Your task to perform on an android device: Set the phone to "Do not disturb". Image 0: 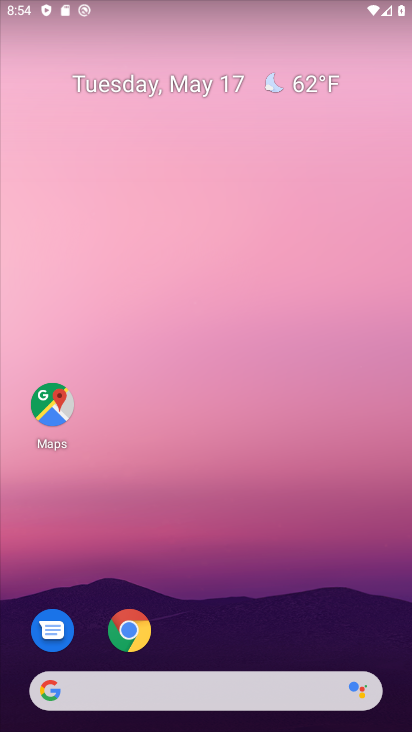
Step 0: drag from (211, 609) to (208, 245)
Your task to perform on an android device: Set the phone to "Do not disturb". Image 1: 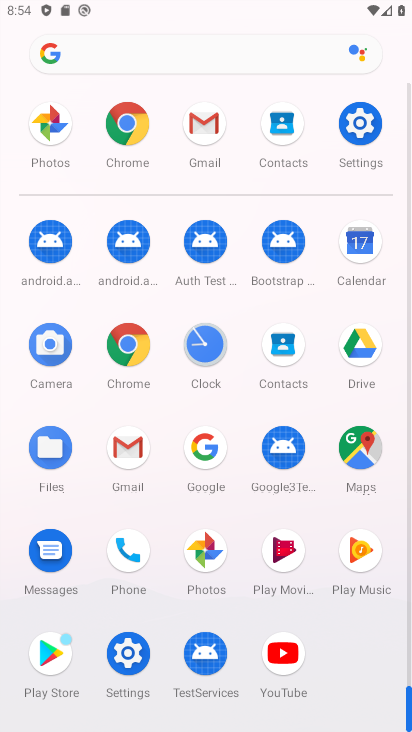
Step 1: click (363, 165)
Your task to perform on an android device: Set the phone to "Do not disturb". Image 2: 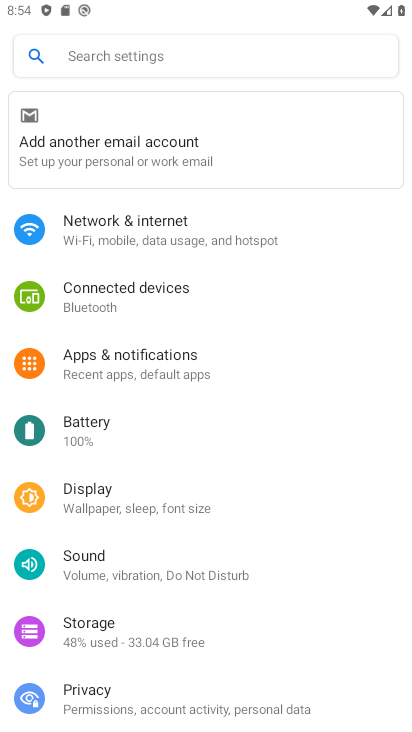
Step 2: click (126, 571)
Your task to perform on an android device: Set the phone to "Do not disturb". Image 3: 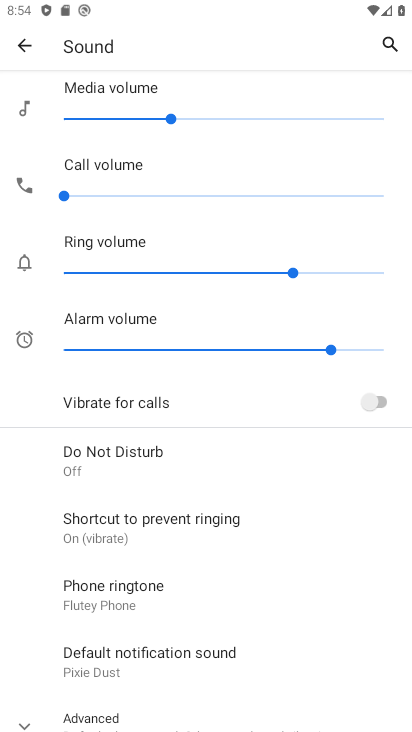
Step 3: click (120, 467)
Your task to perform on an android device: Set the phone to "Do not disturb". Image 4: 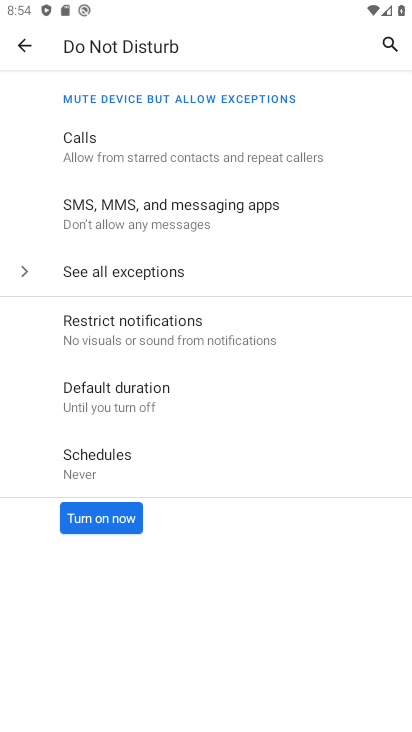
Step 4: click (119, 517)
Your task to perform on an android device: Set the phone to "Do not disturb". Image 5: 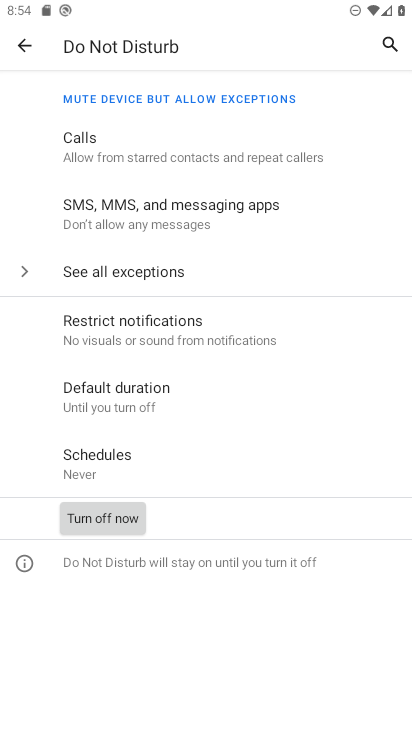
Step 5: task complete